Your task to perform on an android device: Open privacy settings Image 0: 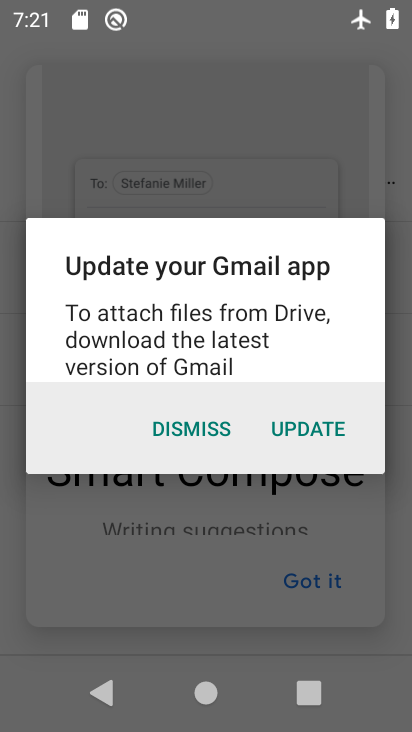
Step 0: press home button
Your task to perform on an android device: Open privacy settings Image 1: 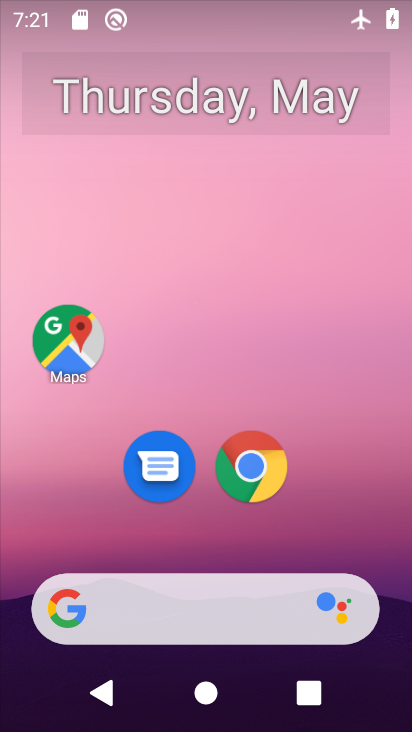
Step 1: drag from (364, 525) to (348, 53)
Your task to perform on an android device: Open privacy settings Image 2: 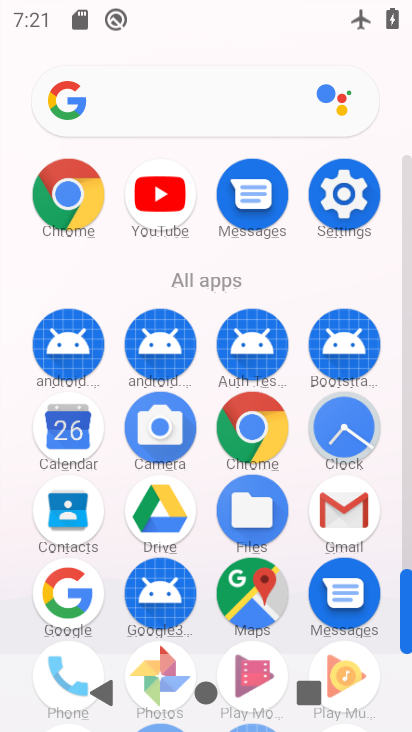
Step 2: click (358, 205)
Your task to perform on an android device: Open privacy settings Image 3: 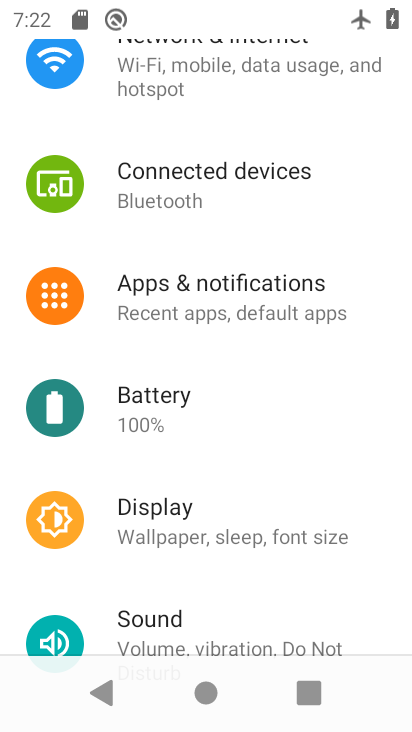
Step 3: click (235, 79)
Your task to perform on an android device: Open privacy settings Image 4: 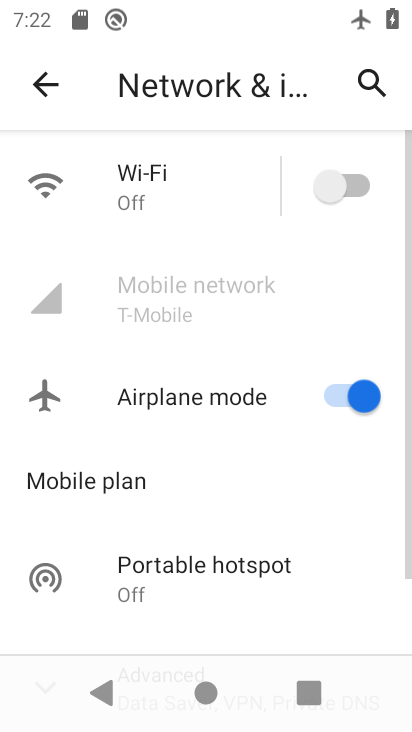
Step 4: click (333, 178)
Your task to perform on an android device: Open privacy settings Image 5: 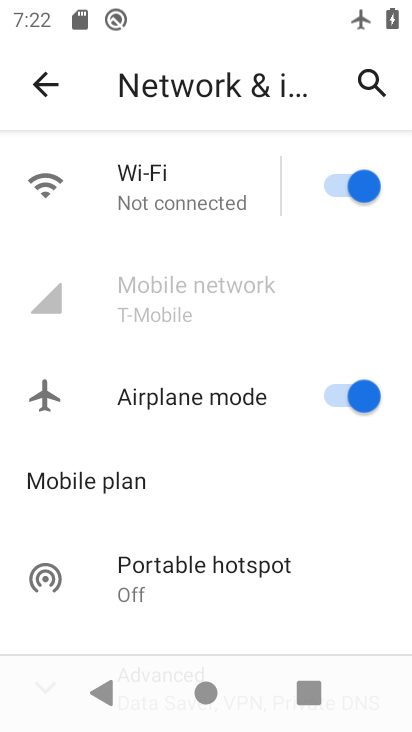
Step 5: click (41, 95)
Your task to perform on an android device: Open privacy settings Image 6: 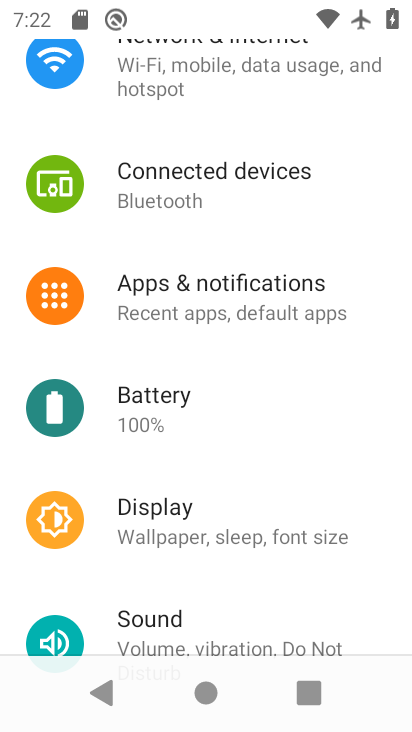
Step 6: drag from (205, 604) to (210, 441)
Your task to perform on an android device: Open privacy settings Image 7: 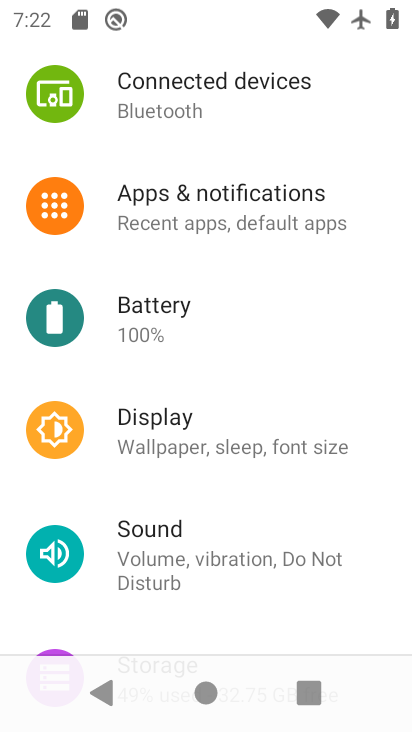
Step 7: click (233, 541)
Your task to perform on an android device: Open privacy settings Image 8: 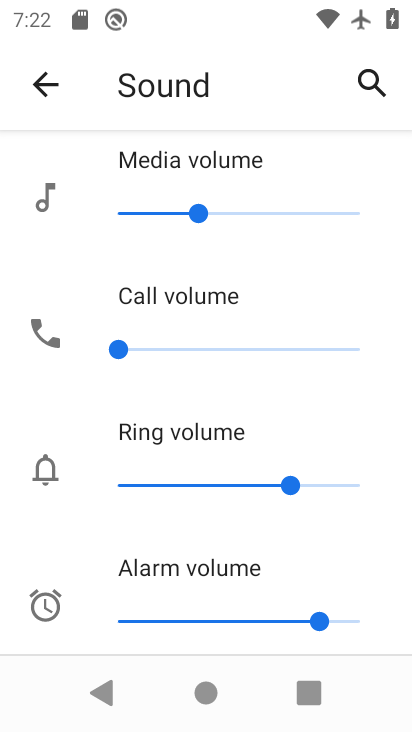
Step 8: click (41, 94)
Your task to perform on an android device: Open privacy settings Image 9: 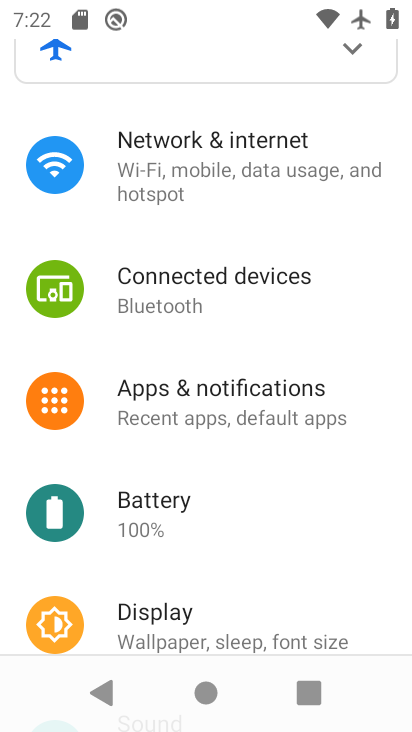
Step 9: drag from (215, 564) to (213, 261)
Your task to perform on an android device: Open privacy settings Image 10: 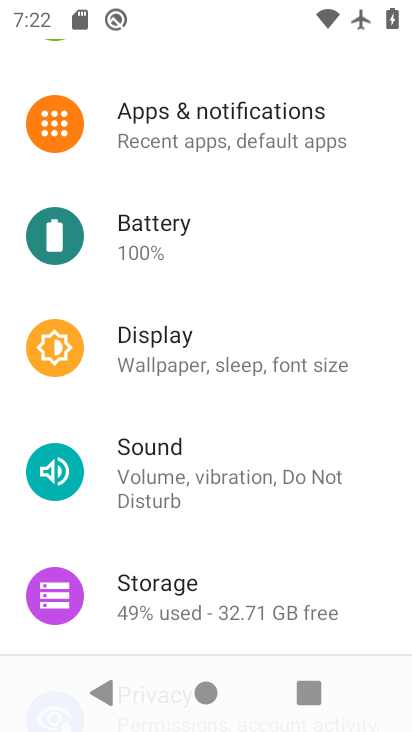
Step 10: drag from (249, 595) to (256, 261)
Your task to perform on an android device: Open privacy settings Image 11: 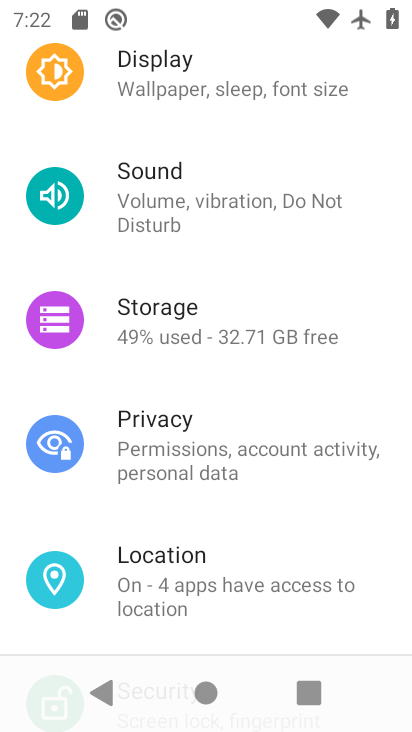
Step 11: click (209, 452)
Your task to perform on an android device: Open privacy settings Image 12: 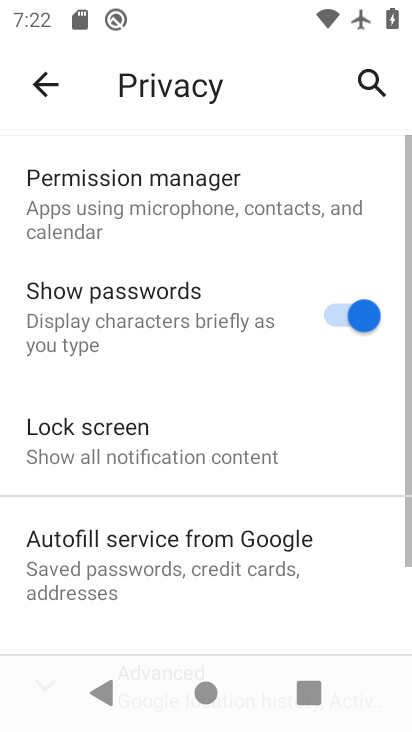
Step 12: task complete